Your task to perform on an android device: Go to eBay Image 0: 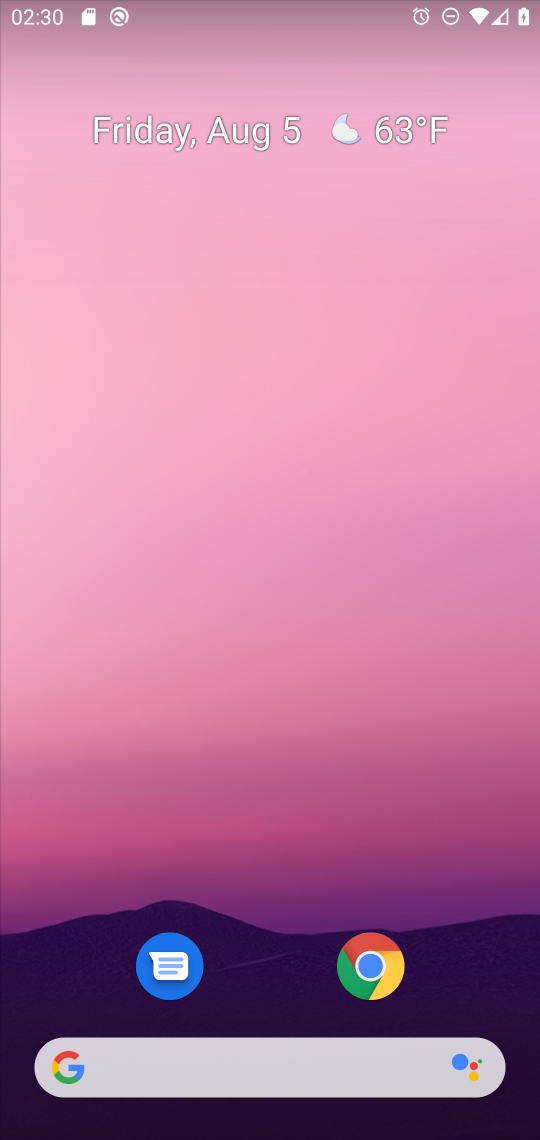
Step 0: click (248, 1082)
Your task to perform on an android device: Go to eBay Image 1: 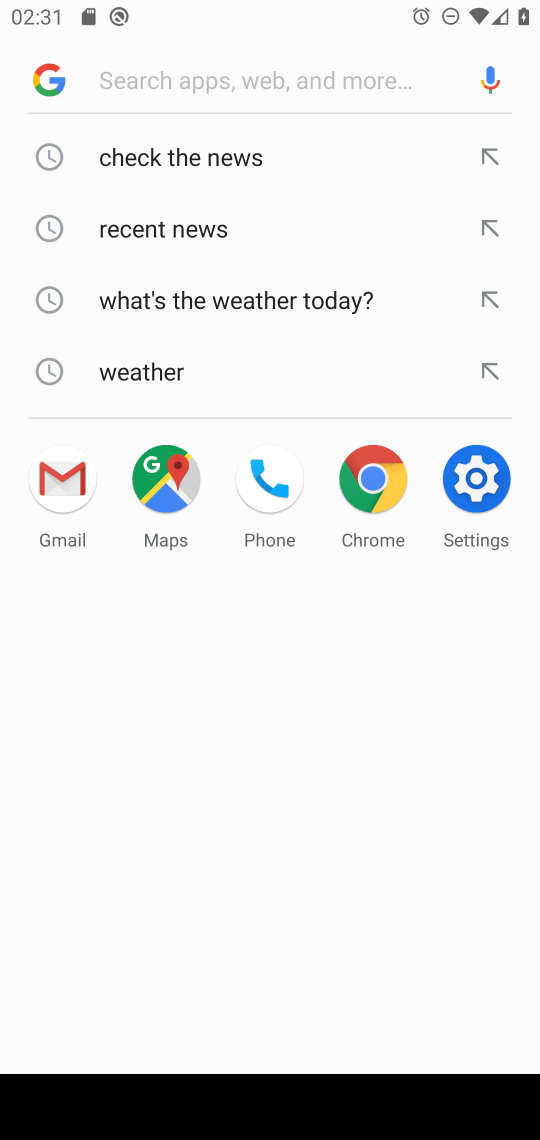
Step 1: type "ebay"
Your task to perform on an android device: Go to eBay Image 2: 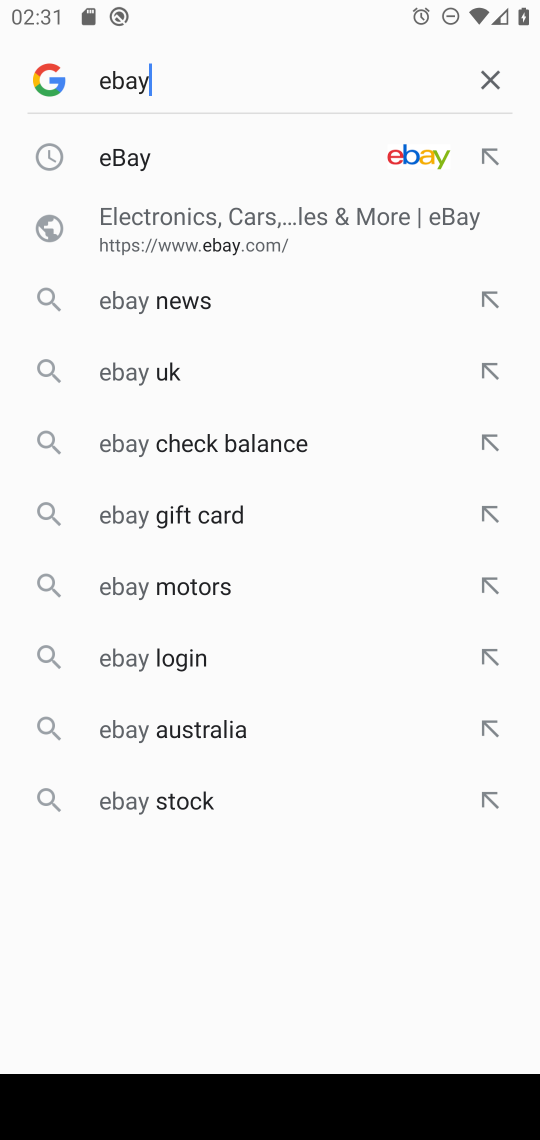
Step 2: click (297, 166)
Your task to perform on an android device: Go to eBay Image 3: 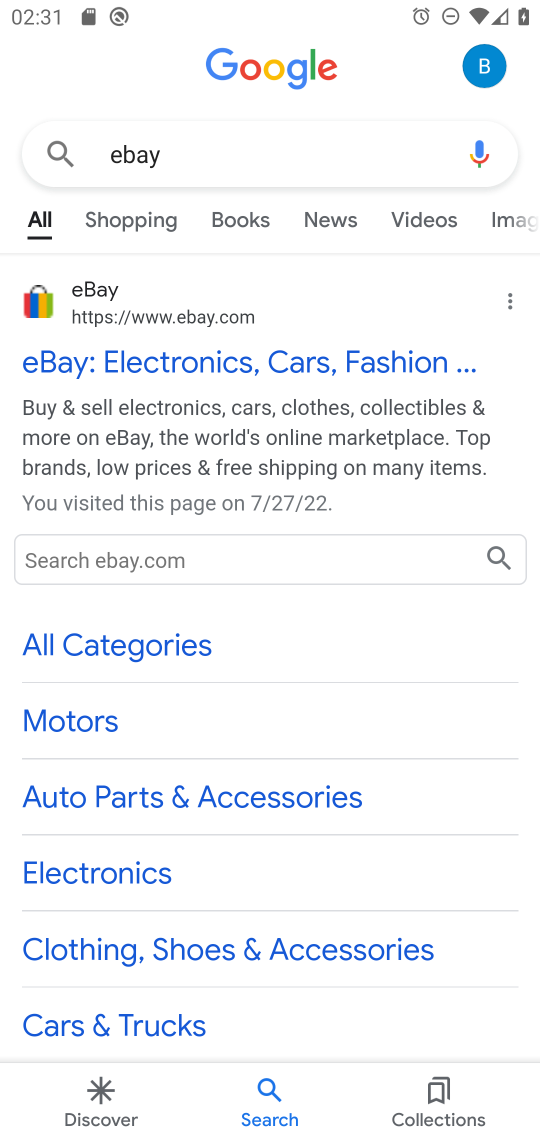
Step 3: click (227, 358)
Your task to perform on an android device: Go to eBay Image 4: 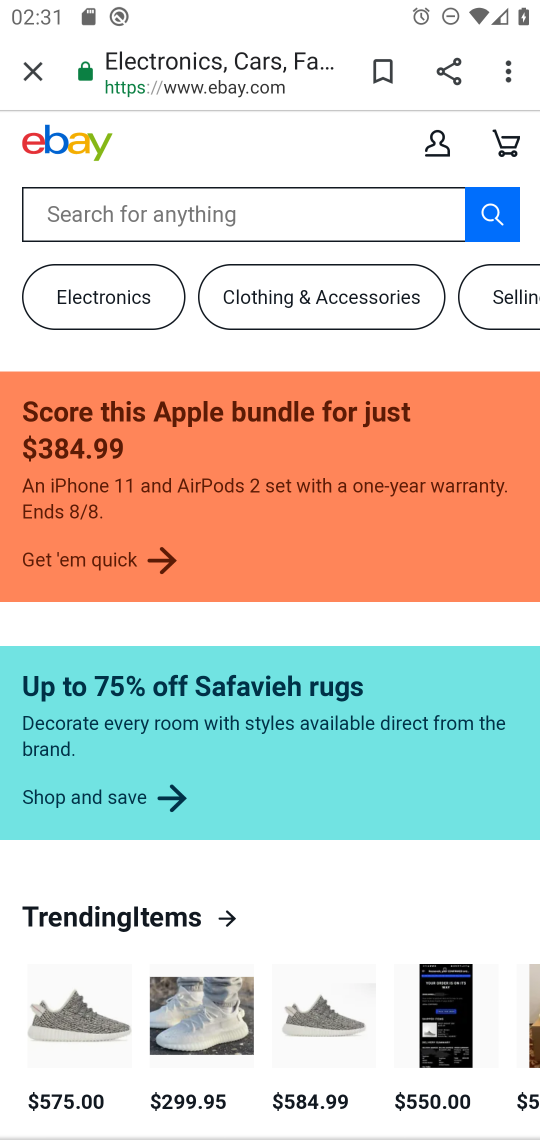
Step 4: task complete